Your task to perform on an android device: turn on airplane mode Image 0: 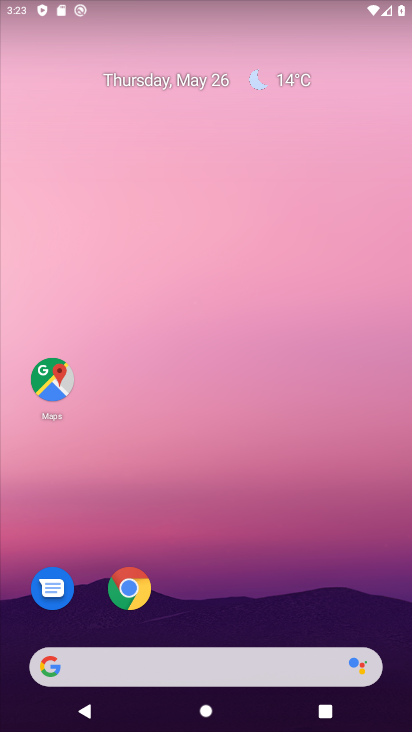
Step 0: drag from (313, 587) to (325, 141)
Your task to perform on an android device: turn on airplane mode Image 1: 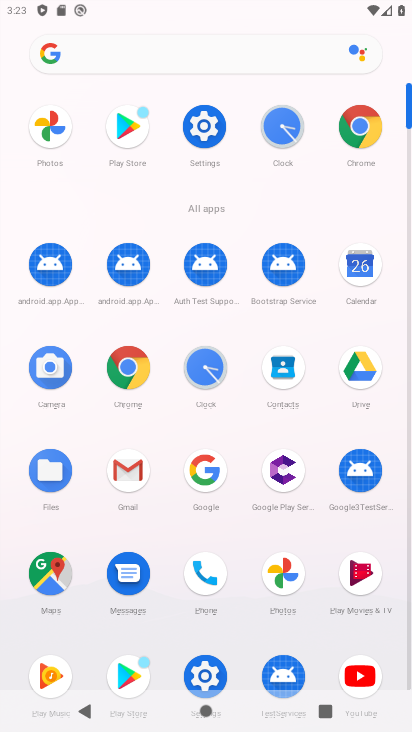
Step 1: click (194, 133)
Your task to perform on an android device: turn on airplane mode Image 2: 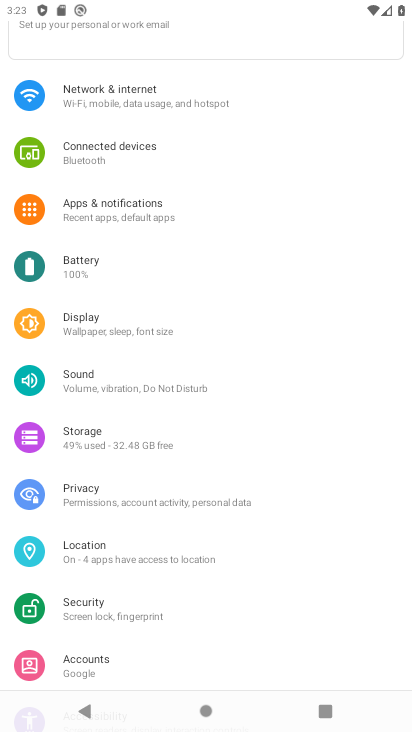
Step 2: click (189, 121)
Your task to perform on an android device: turn on airplane mode Image 3: 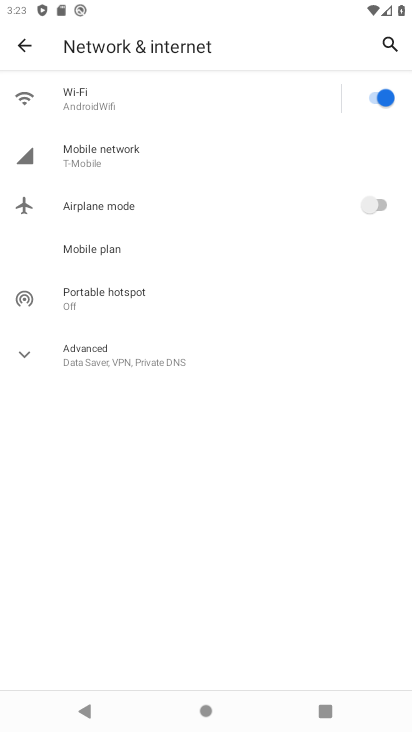
Step 3: click (387, 198)
Your task to perform on an android device: turn on airplane mode Image 4: 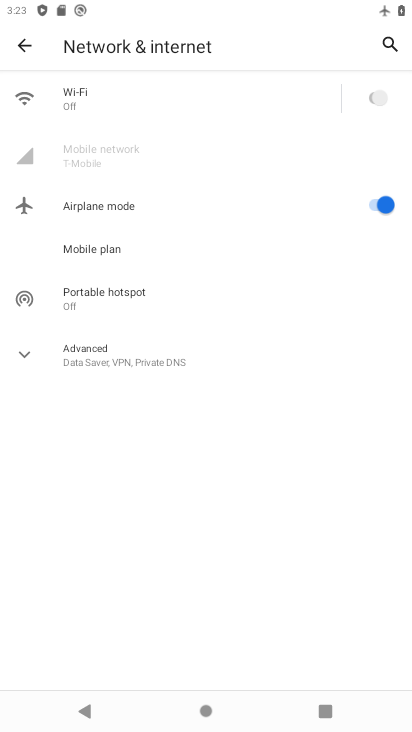
Step 4: task complete